Your task to perform on an android device: delete browsing data in the chrome app Image 0: 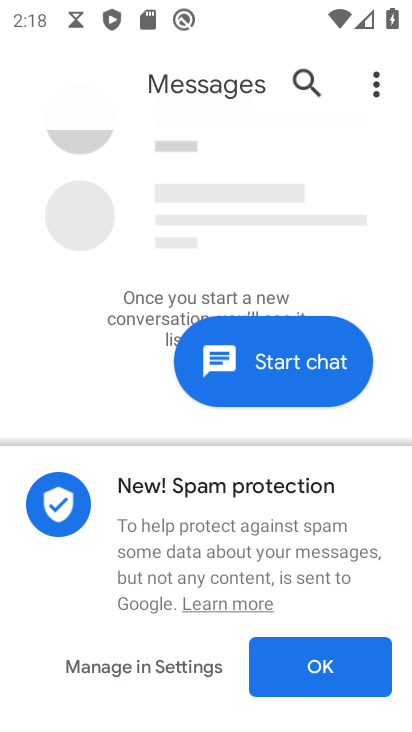
Step 0: press home button
Your task to perform on an android device: delete browsing data in the chrome app Image 1: 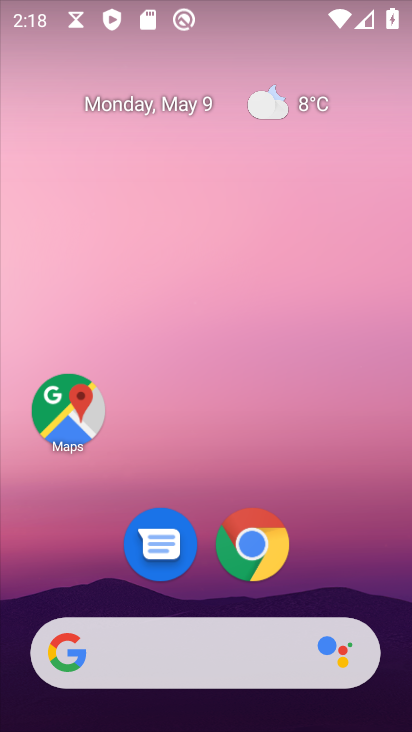
Step 1: drag from (328, 572) to (104, 184)
Your task to perform on an android device: delete browsing data in the chrome app Image 2: 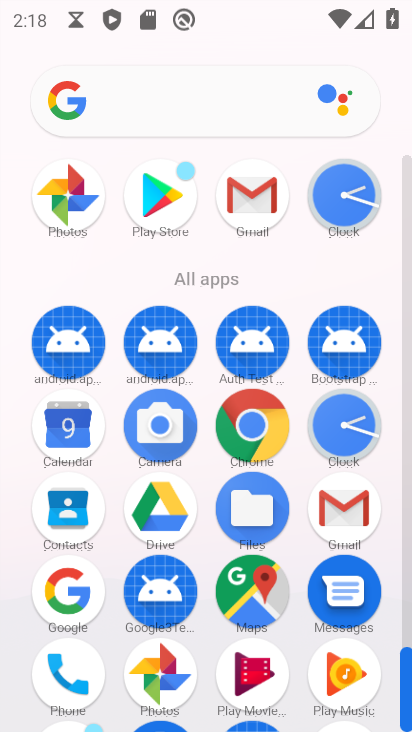
Step 2: click (245, 412)
Your task to perform on an android device: delete browsing data in the chrome app Image 3: 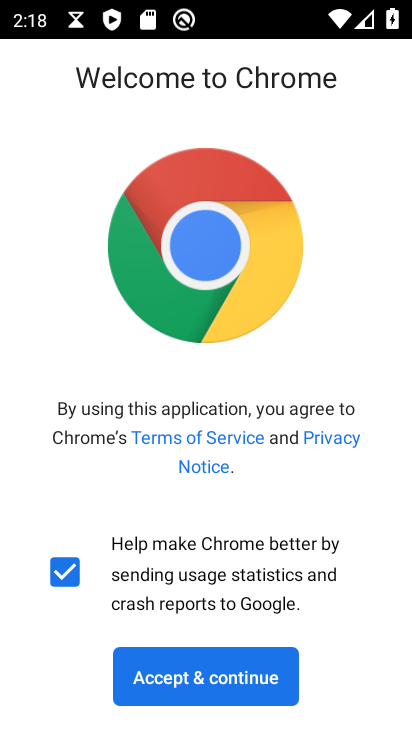
Step 3: click (215, 678)
Your task to perform on an android device: delete browsing data in the chrome app Image 4: 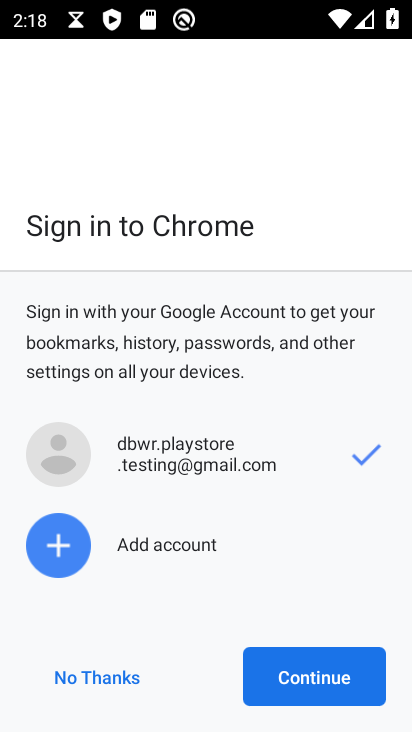
Step 4: click (278, 678)
Your task to perform on an android device: delete browsing data in the chrome app Image 5: 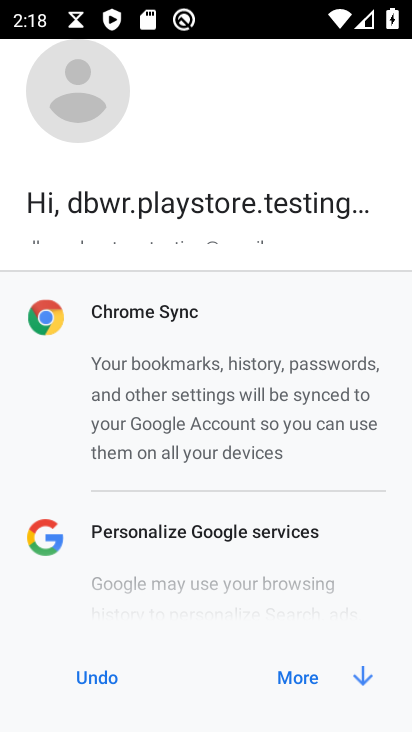
Step 5: click (328, 676)
Your task to perform on an android device: delete browsing data in the chrome app Image 6: 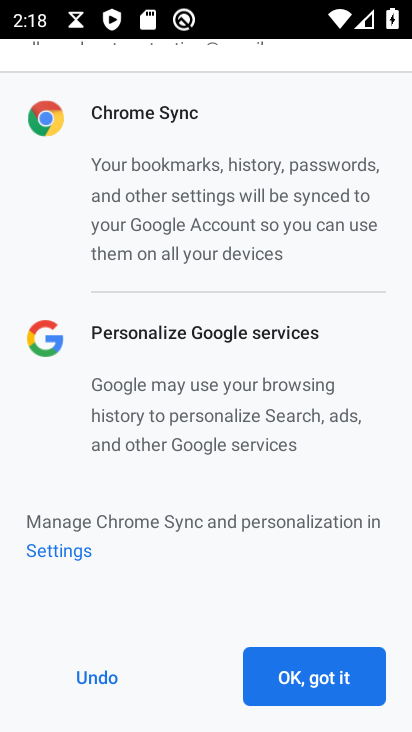
Step 6: click (328, 676)
Your task to perform on an android device: delete browsing data in the chrome app Image 7: 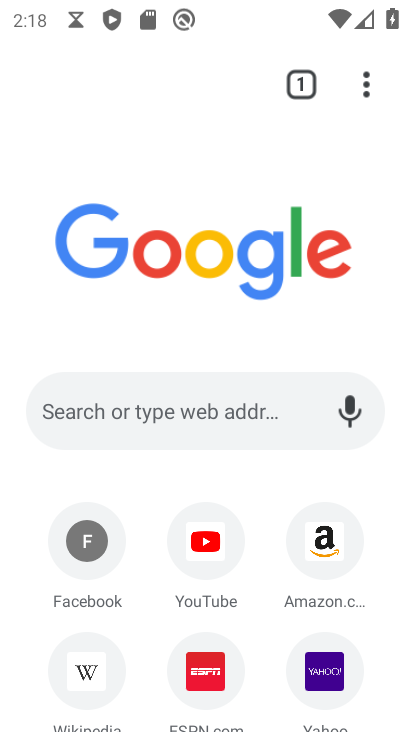
Step 7: task complete